Your task to perform on an android device: turn off picture-in-picture Image 0: 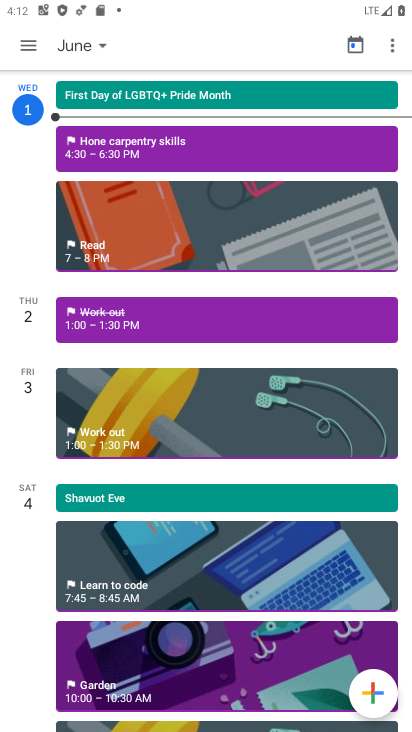
Step 0: press back button
Your task to perform on an android device: turn off picture-in-picture Image 1: 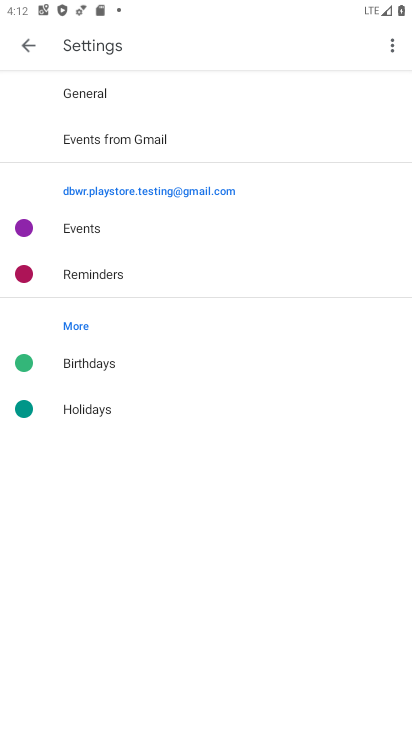
Step 1: press back button
Your task to perform on an android device: turn off picture-in-picture Image 2: 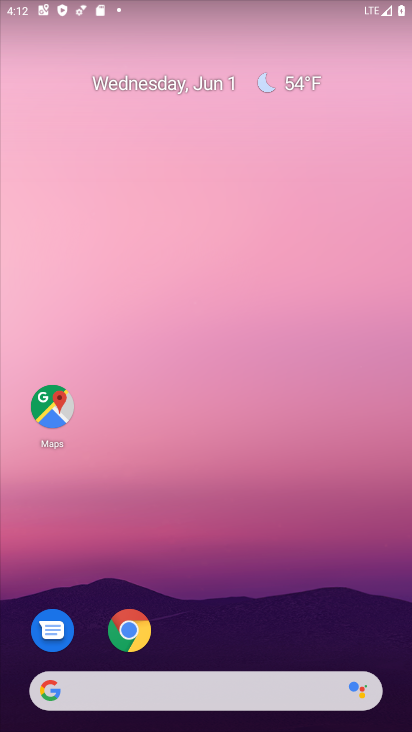
Step 2: drag from (305, 572) to (278, 61)
Your task to perform on an android device: turn off picture-in-picture Image 3: 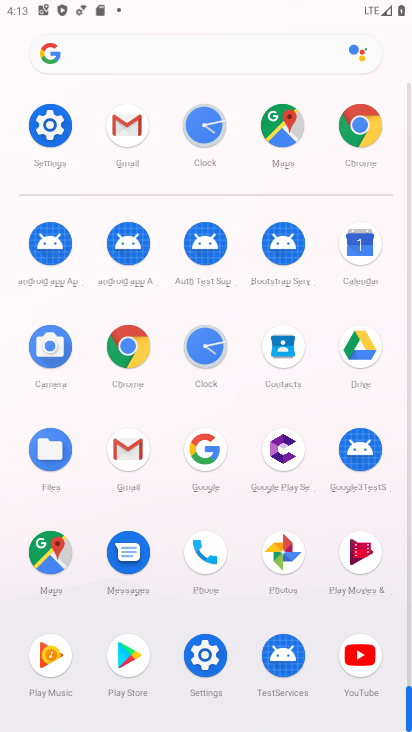
Step 3: drag from (16, 528) to (15, 183)
Your task to perform on an android device: turn off picture-in-picture Image 4: 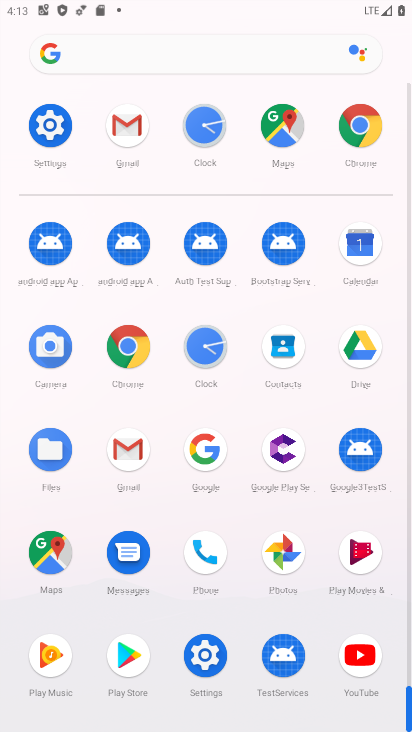
Step 4: click (206, 656)
Your task to perform on an android device: turn off picture-in-picture Image 5: 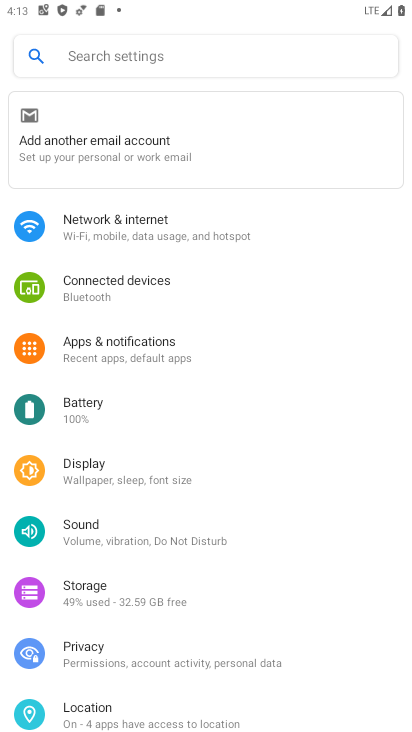
Step 5: drag from (270, 594) to (293, 155)
Your task to perform on an android device: turn off picture-in-picture Image 6: 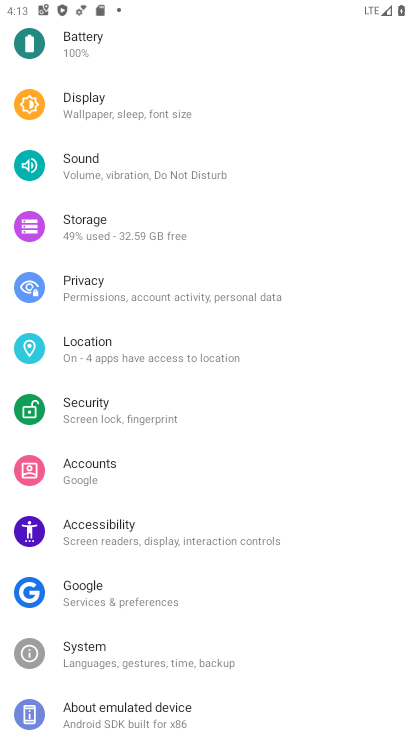
Step 6: drag from (159, 598) to (213, 234)
Your task to perform on an android device: turn off picture-in-picture Image 7: 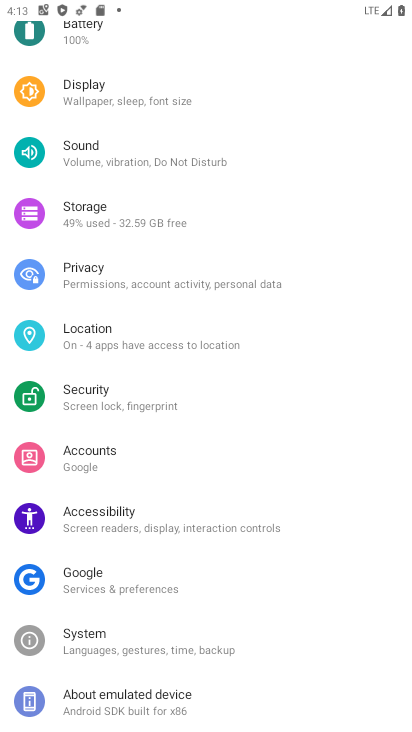
Step 7: drag from (154, 213) to (156, 492)
Your task to perform on an android device: turn off picture-in-picture Image 8: 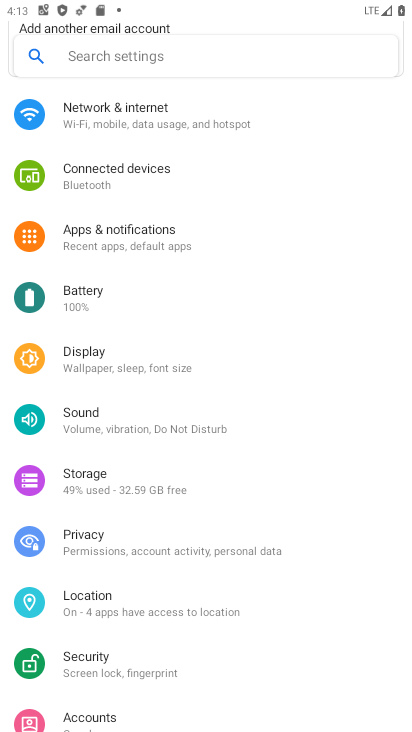
Step 8: click (136, 243)
Your task to perform on an android device: turn off picture-in-picture Image 9: 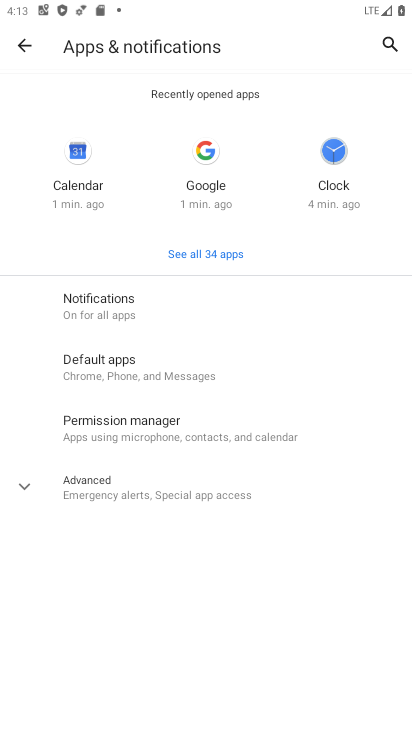
Step 9: click (100, 474)
Your task to perform on an android device: turn off picture-in-picture Image 10: 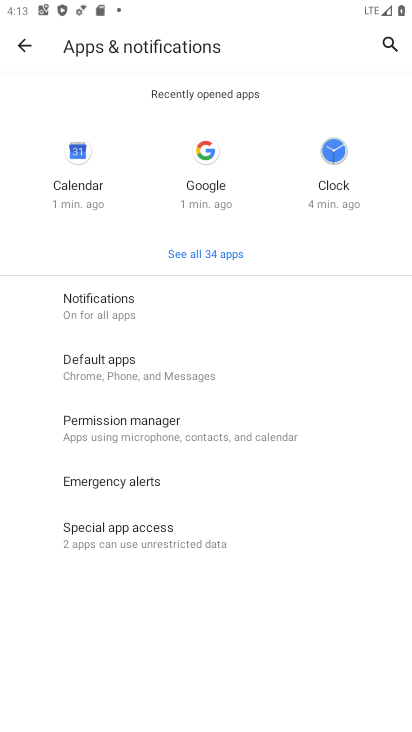
Step 10: drag from (313, 624) to (331, 294)
Your task to perform on an android device: turn off picture-in-picture Image 11: 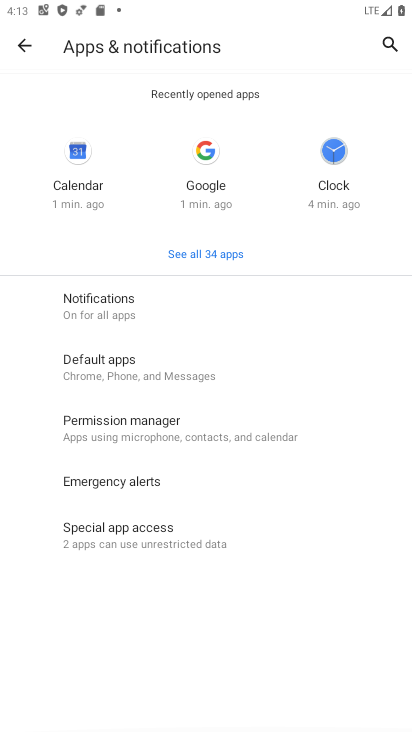
Step 11: click (137, 533)
Your task to perform on an android device: turn off picture-in-picture Image 12: 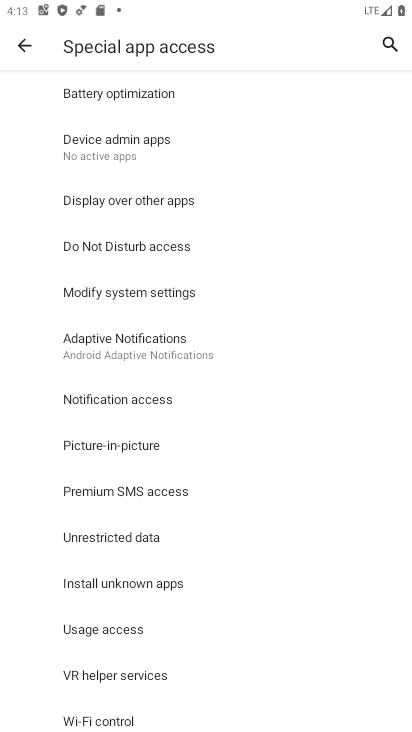
Step 12: click (158, 438)
Your task to perform on an android device: turn off picture-in-picture Image 13: 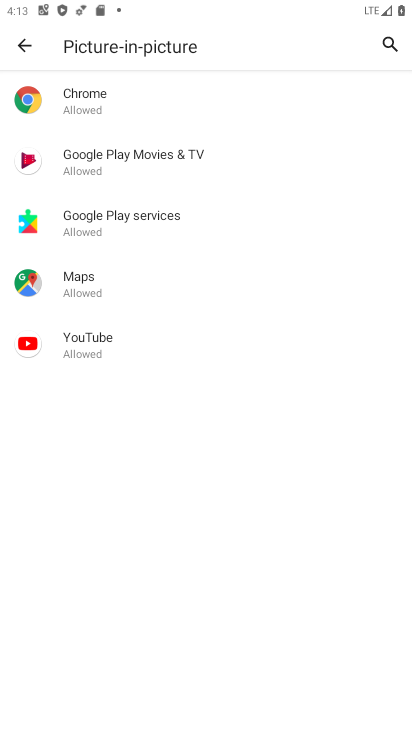
Step 13: click (172, 101)
Your task to perform on an android device: turn off picture-in-picture Image 14: 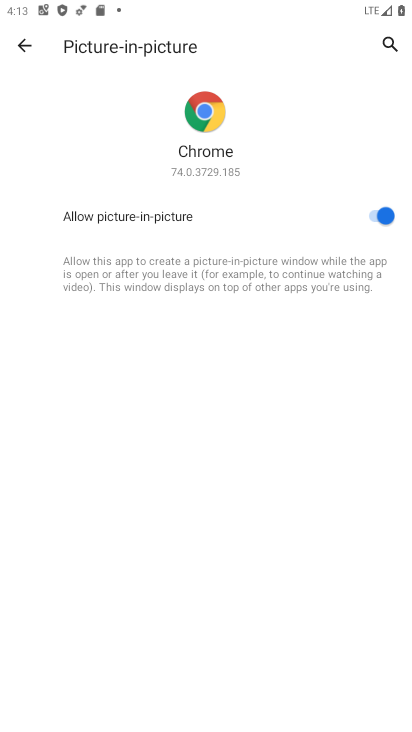
Step 14: click (387, 221)
Your task to perform on an android device: turn off picture-in-picture Image 15: 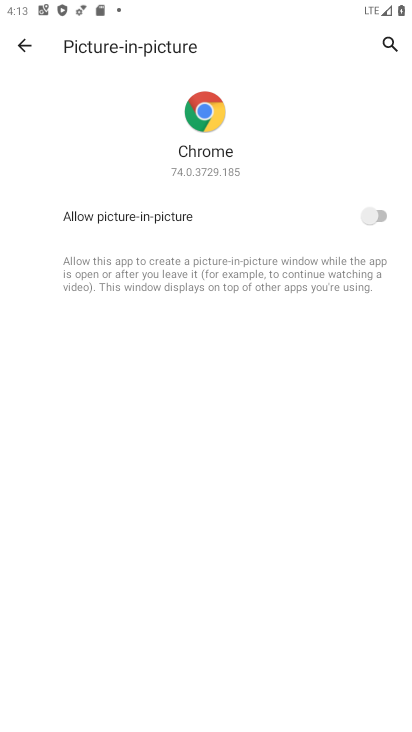
Step 15: click (31, 38)
Your task to perform on an android device: turn off picture-in-picture Image 16: 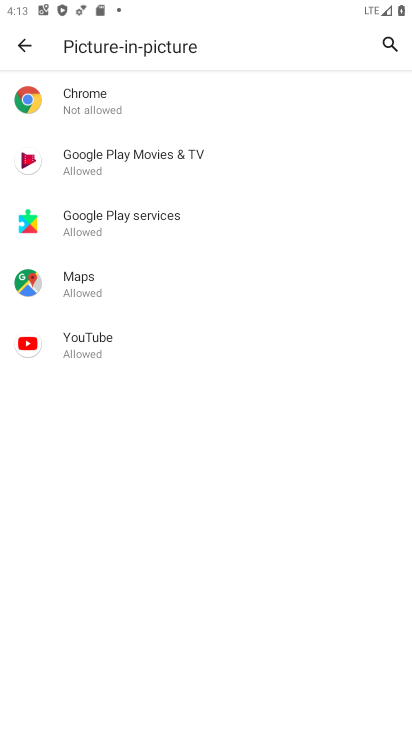
Step 16: click (156, 150)
Your task to perform on an android device: turn off picture-in-picture Image 17: 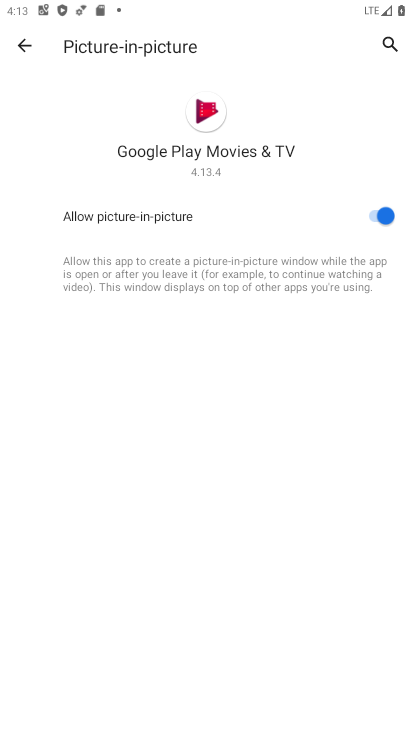
Step 17: click (373, 212)
Your task to perform on an android device: turn off picture-in-picture Image 18: 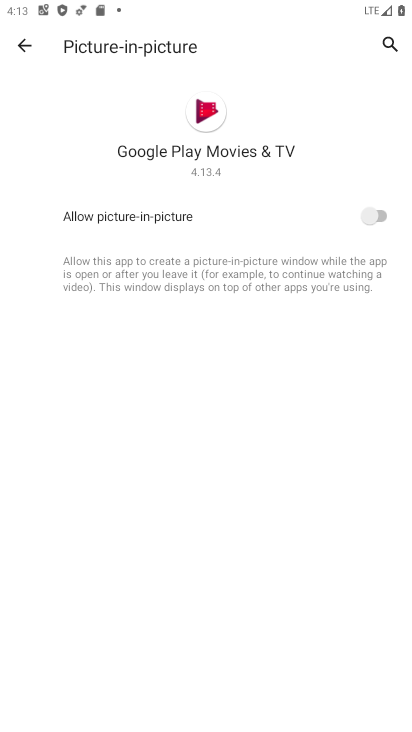
Step 18: click (32, 46)
Your task to perform on an android device: turn off picture-in-picture Image 19: 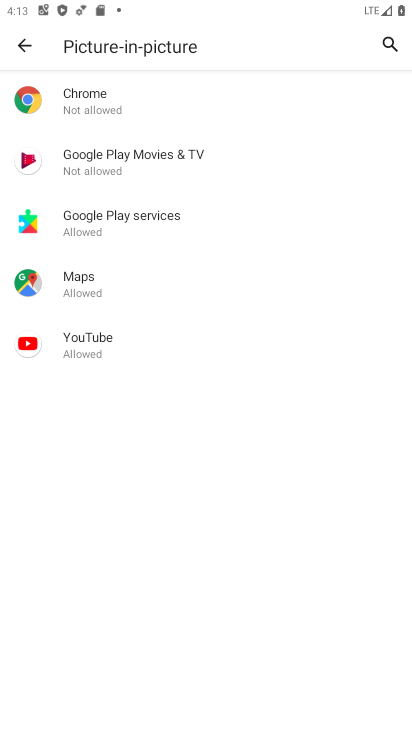
Step 19: click (143, 224)
Your task to perform on an android device: turn off picture-in-picture Image 20: 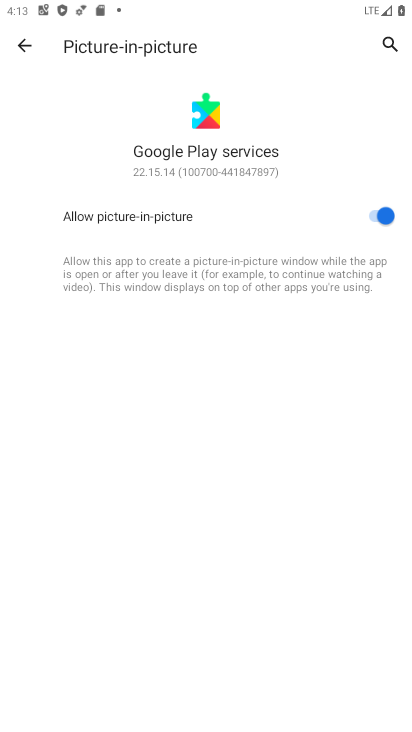
Step 20: click (369, 212)
Your task to perform on an android device: turn off picture-in-picture Image 21: 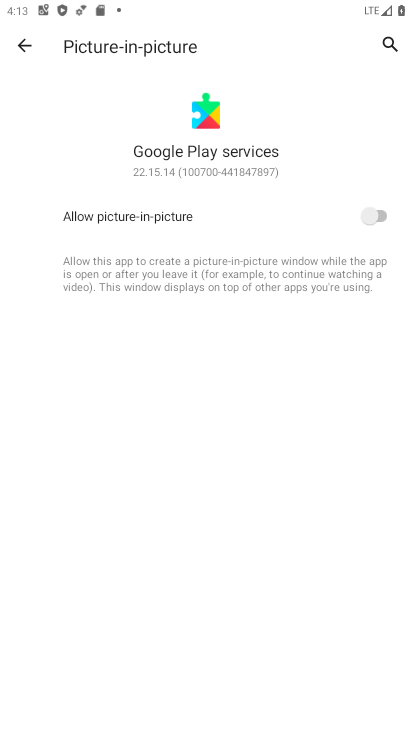
Step 21: click (24, 40)
Your task to perform on an android device: turn off picture-in-picture Image 22: 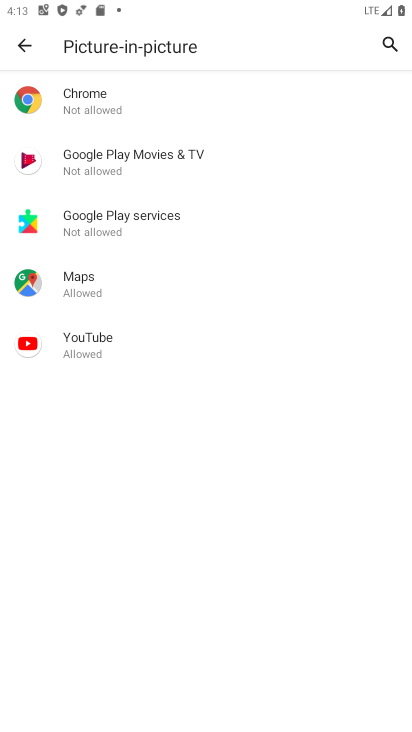
Step 22: click (103, 278)
Your task to perform on an android device: turn off picture-in-picture Image 23: 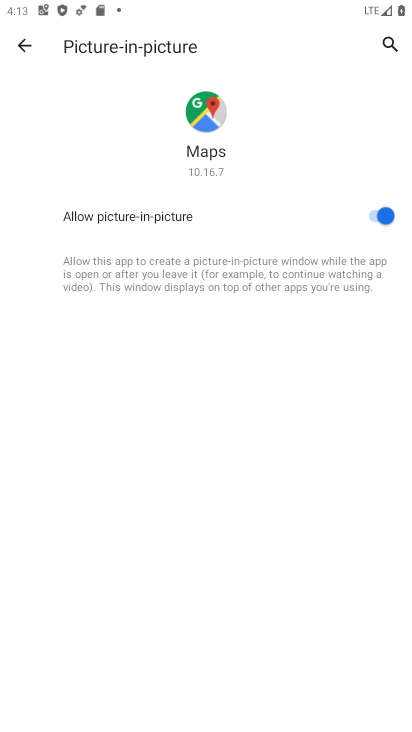
Step 23: click (386, 215)
Your task to perform on an android device: turn off picture-in-picture Image 24: 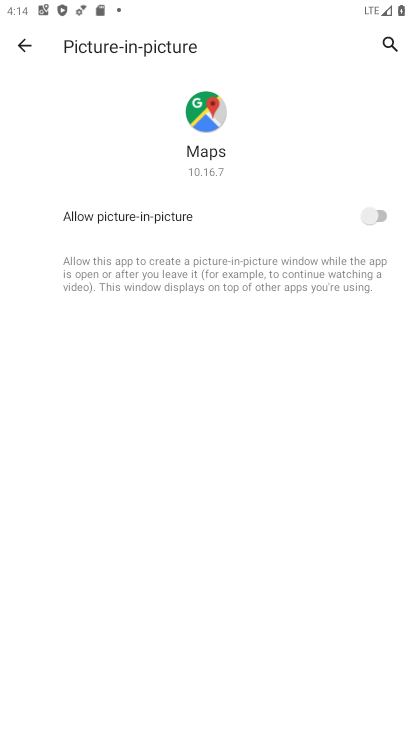
Step 24: click (24, 41)
Your task to perform on an android device: turn off picture-in-picture Image 25: 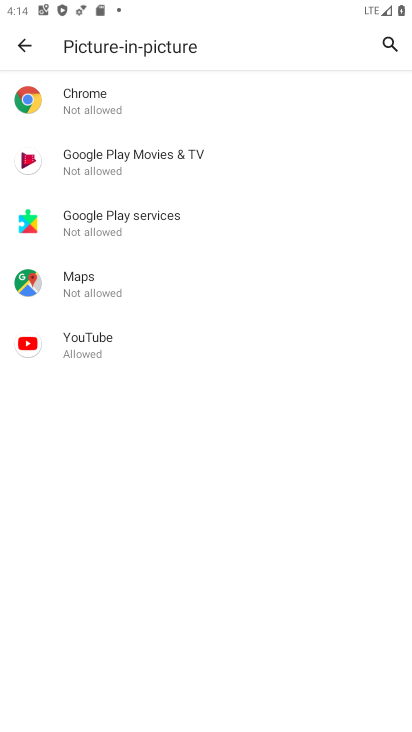
Step 25: click (103, 343)
Your task to perform on an android device: turn off picture-in-picture Image 26: 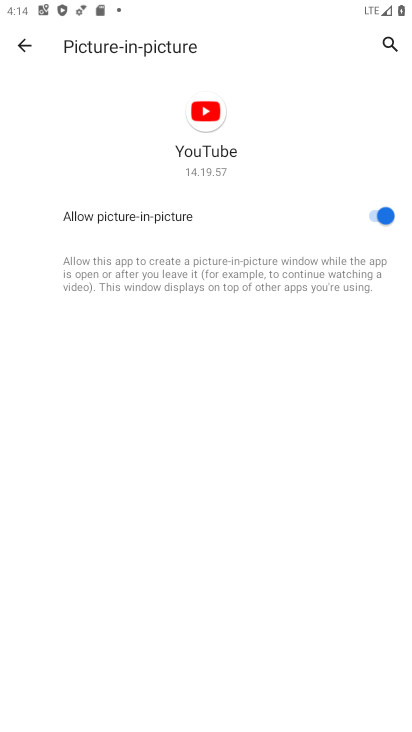
Step 26: click (372, 201)
Your task to perform on an android device: turn off picture-in-picture Image 27: 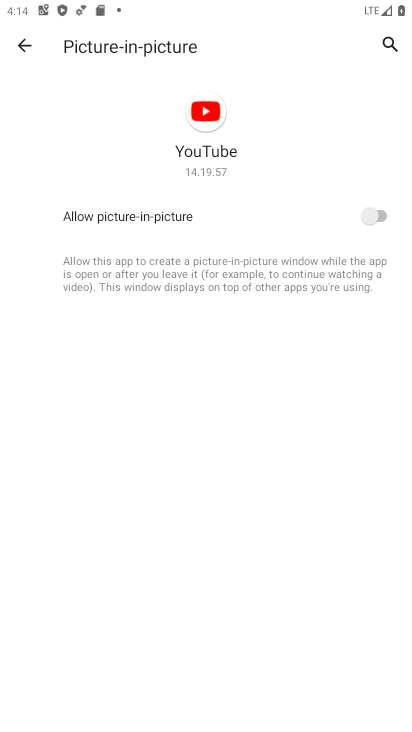
Step 27: click (24, 32)
Your task to perform on an android device: turn off picture-in-picture Image 28: 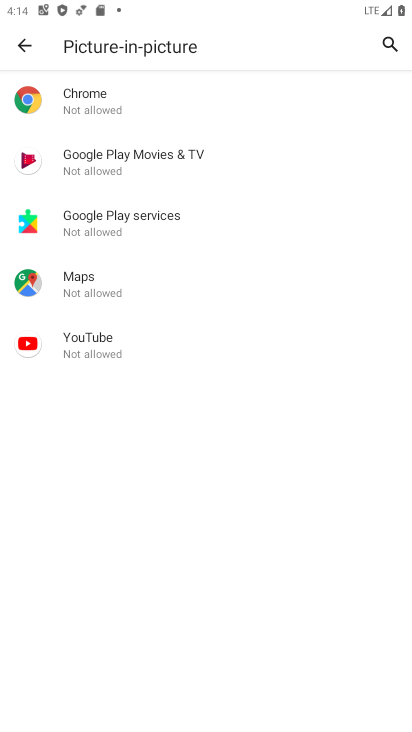
Step 28: task complete